Your task to perform on an android device: install app "McDonald's" Image 0: 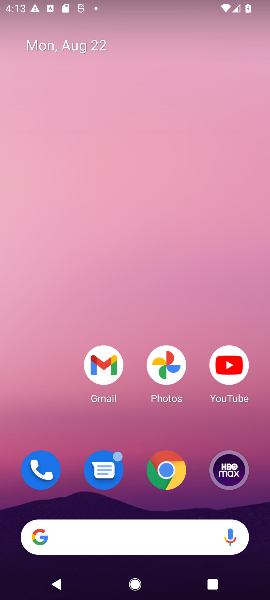
Step 0: drag from (124, 526) to (148, 109)
Your task to perform on an android device: install app "McDonald's" Image 1: 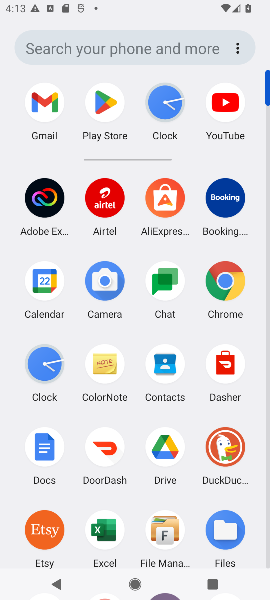
Step 1: click (108, 106)
Your task to perform on an android device: install app "McDonald's" Image 2: 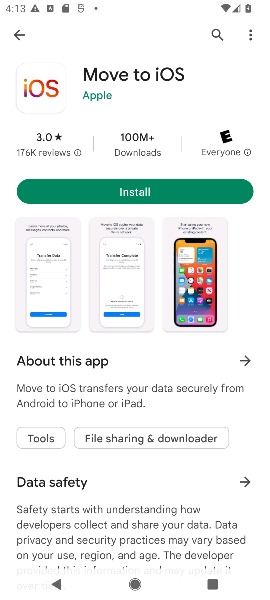
Step 2: click (16, 42)
Your task to perform on an android device: install app "McDonald's" Image 3: 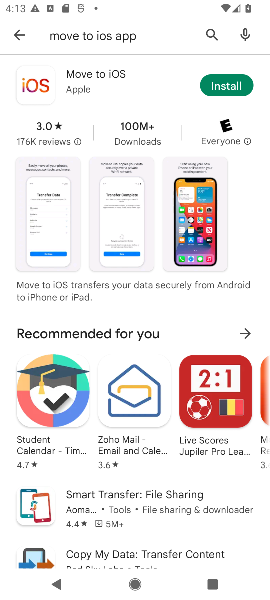
Step 3: click (18, 42)
Your task to perform on an android device: install app "McDonald's" Image 4: 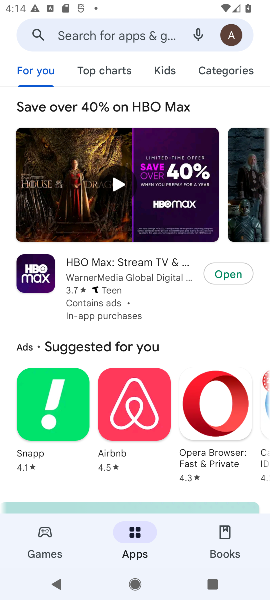
Step 4: click (102, 30)
Your task to perform on an android device: install app "McDonald's" Image 5: 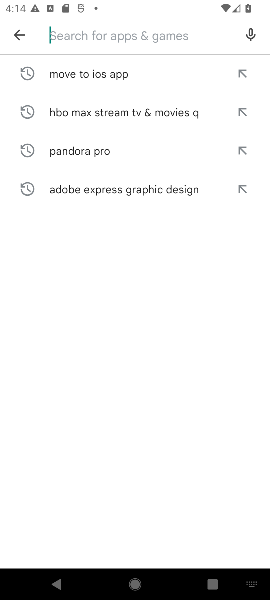
Step 5: type "McDonald's "
Your task to perform on an android device: install app "McDonald's" Image 6: 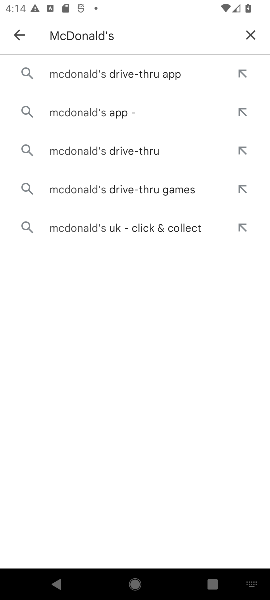
Step 6: click (96, 67)
Your task to perform on an android device: install app "McDonald's" Image 7: 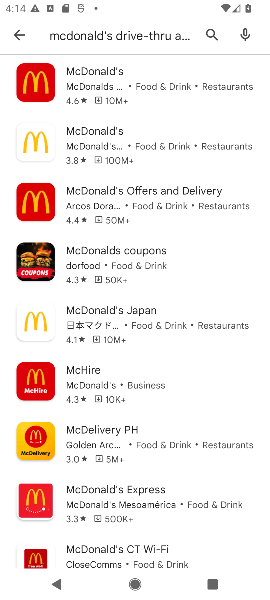
Step 7: click (108, 70)
Your task to perform on an android device: install app "McDonald's" Image 8: 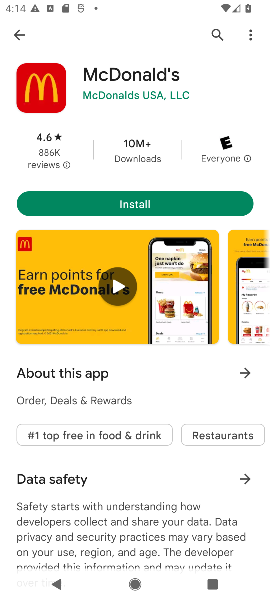
Step 8: click (118, 197)
Your task to perform on an android device: install app "McDonald's" Image 9: 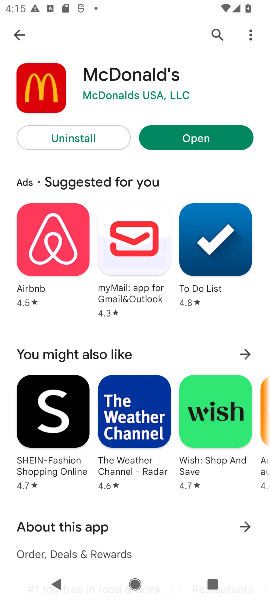
Step 9: task complete